Your task to perform on an android device: Search for vegetarian restaurants on Maps Image 0: 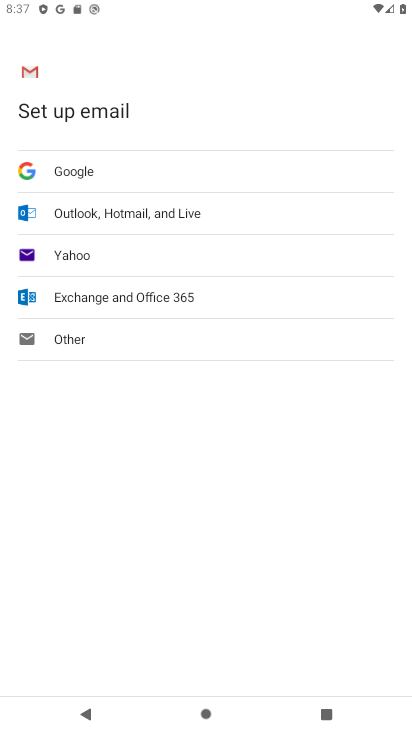
Step 0: press home button
Your task to perform on an android device: Search for vegetarian restaurants on Maps Image 1: 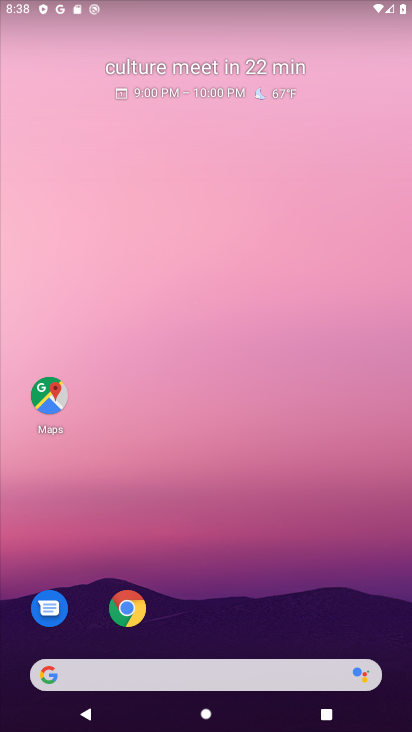
Step 1: click (40, 413)
Your task to perform on an android device: Search for vegetarian restaurants on Maps Image 2: 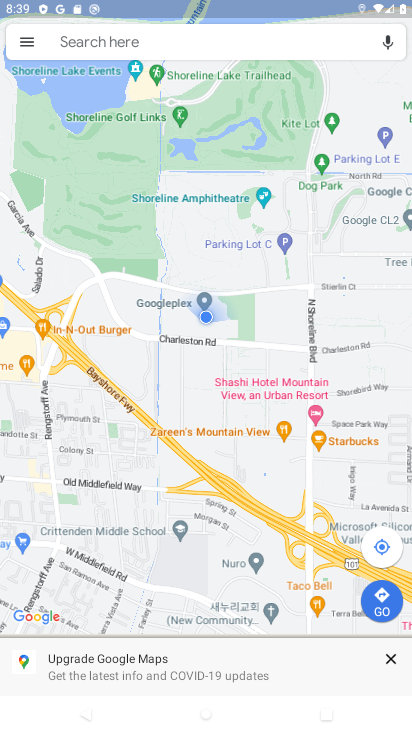
Step 2: click (172, 40)
Your task to perform on an android device: Search for vegetarian restaurants on Maps Image 3: 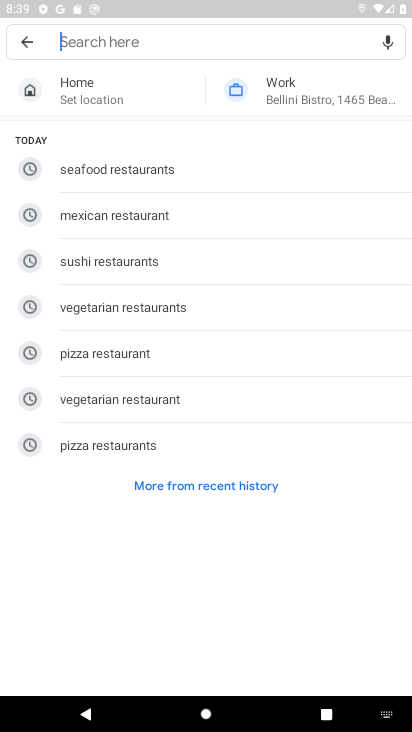
Step 3: click (144, 307)
Your task to perform on an android device: Search for vegetarian restaurants on Maps Image 4: 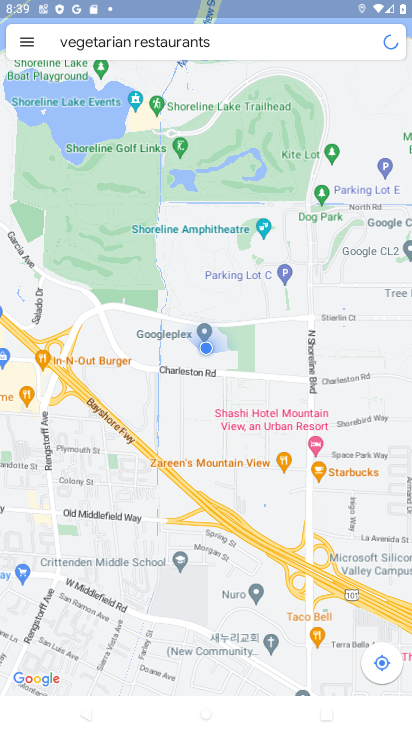
Step 4: task complete